Your task to perform on an android device: What is the news today? Image 0: 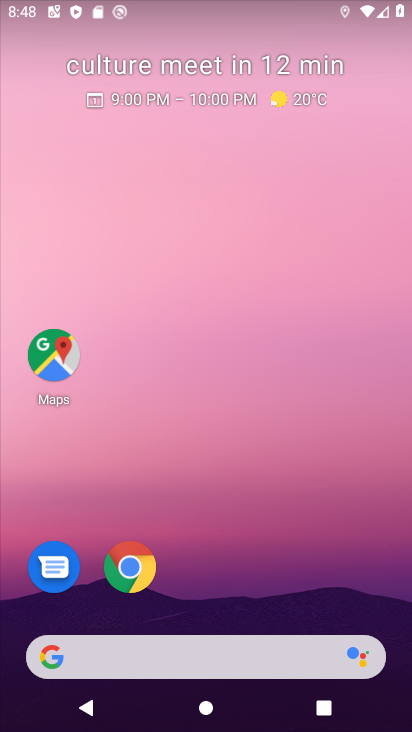
Step 0: click (136, 644)
Your task to perform on an android device: What is the news today? Image 1: 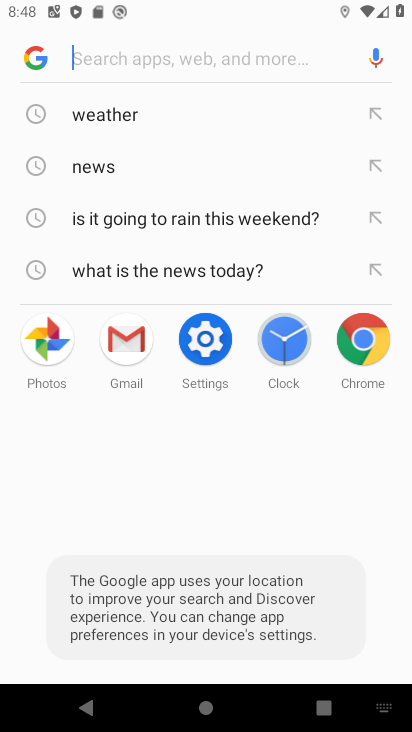
Step 1: click (125, 169)
Your task to perform on an android device: What is the news today? Image 2: 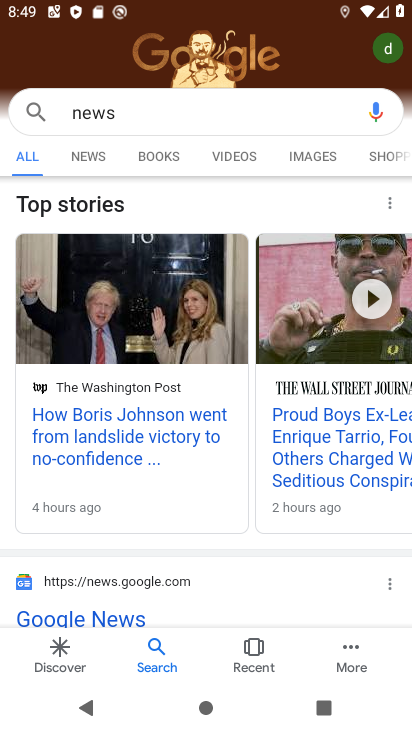
Step 2: task complete